Your task to perform on an android device: check android version Image 0: 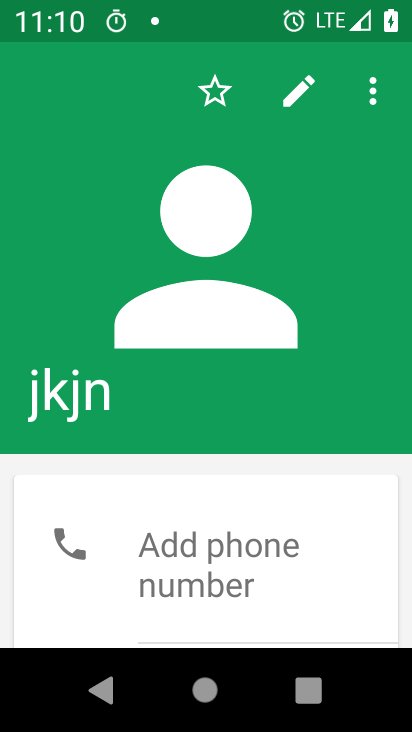
Step 0: drag from (212, 418) to (212, 199)
Your task to perform on an android device: check android version Image 1: 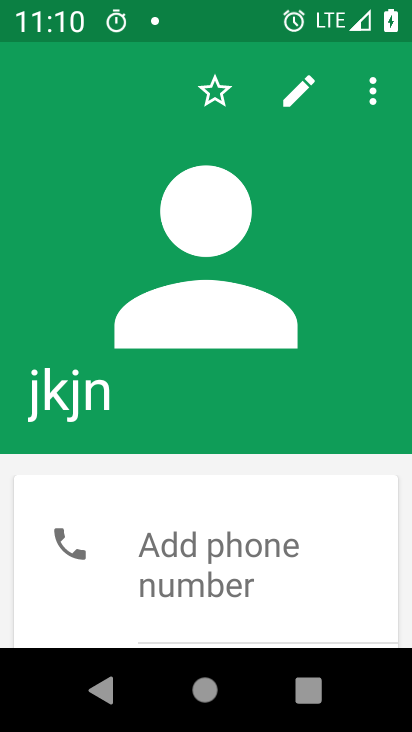
Step 1: drag from (230, 562) to (286, 228)
Your task to perform on an android device: check android version Image 2: 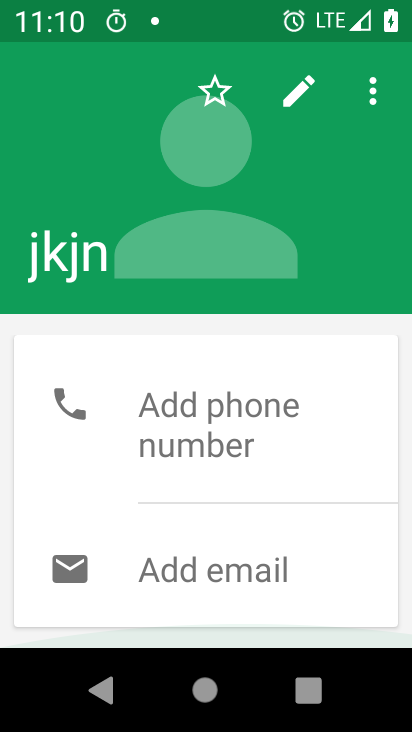
Step 2: drag from (253, 218) to (239, 553)
Your task to perform on an android device: check android version Image 3: 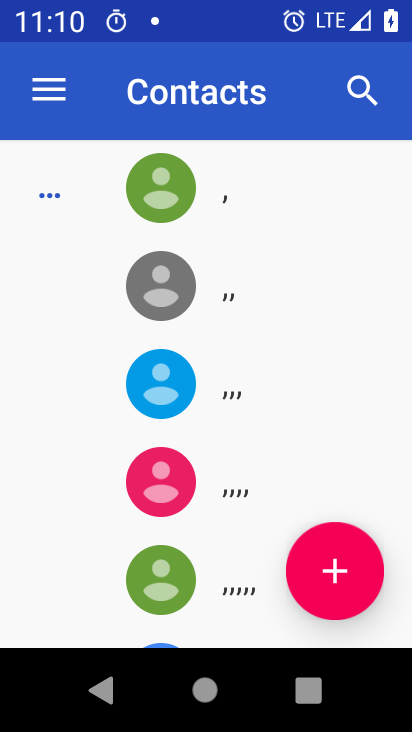
Step 3: press home button
Your task to perform on an android device: check android version Image 4: 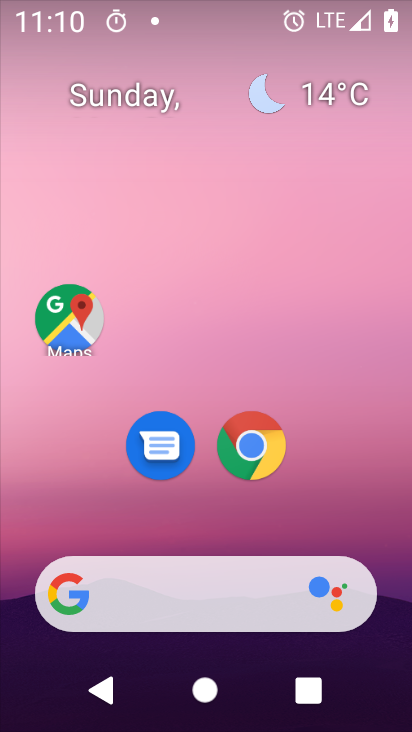
Step 4: drag from (210, 507) to (191, 192)
Your task to perform on an android device: check android version Image 5: 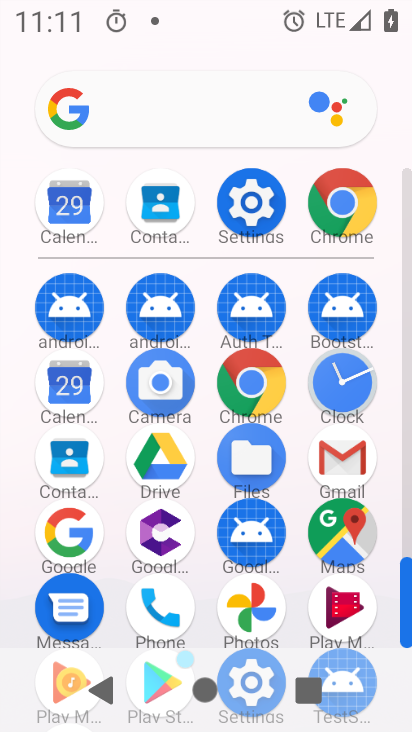
Step 5: click (243, 207)
Your task to perform on an android device: check android version Image 6: 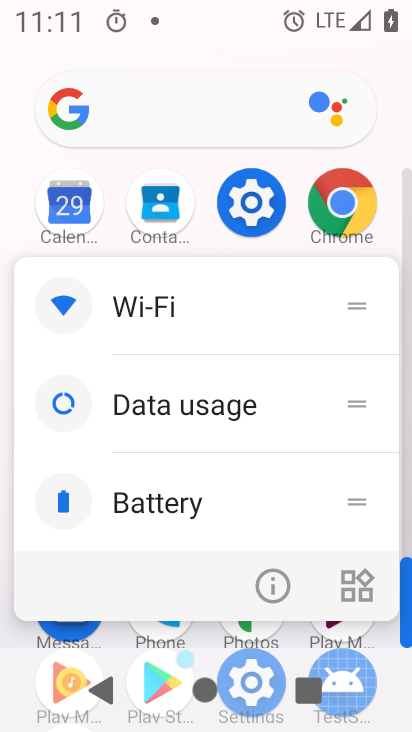
Step 6: click (271, 581)
Your task to perform on an android device: check android version Image 7: 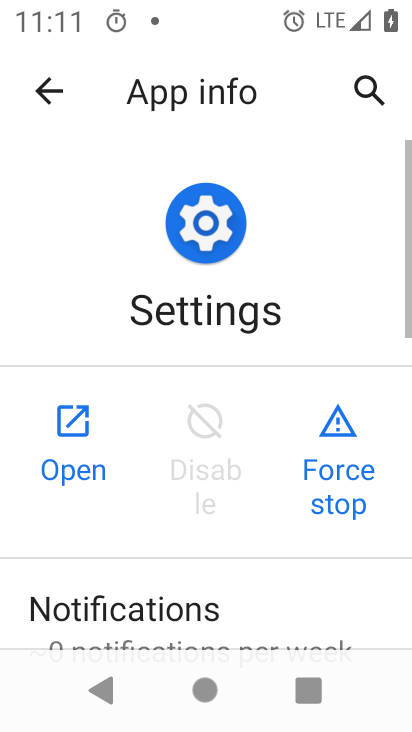
Step 7: click (79, 433)
Your task to perform on an android device: check android version Image 8: 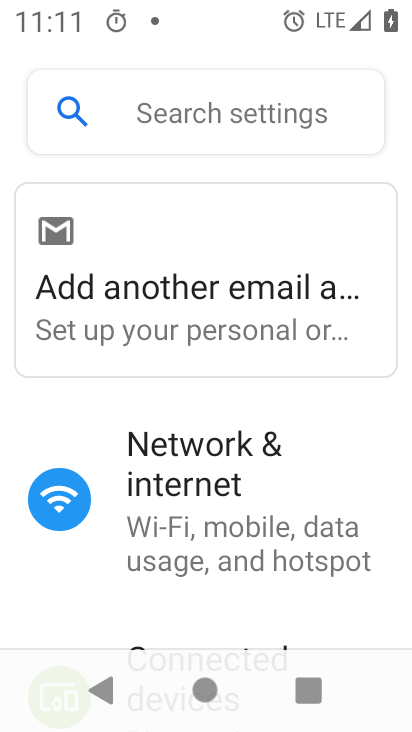
Step 8: drag from (280, 541) to (352, 3)
Your task to perform on an android device: check android version Image 9: 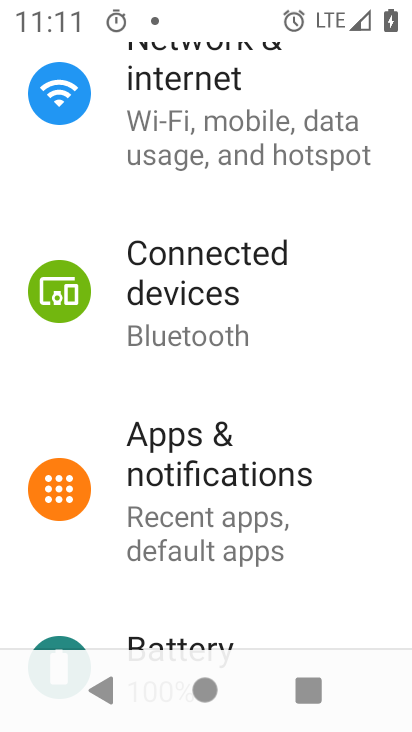
Step 9: drag from (271, 486) to (344, 0)
Your task to perform on an android device: check android version Image 10: 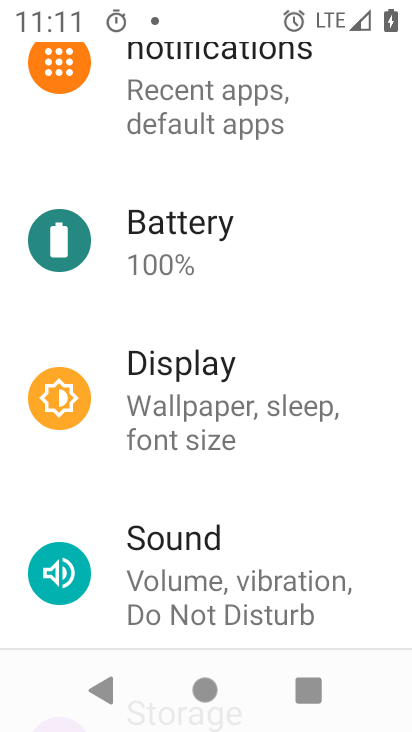
Step 10: drag from (195, 550) to (270, 9)
Your task to perform on an android device: check android version Image 11: 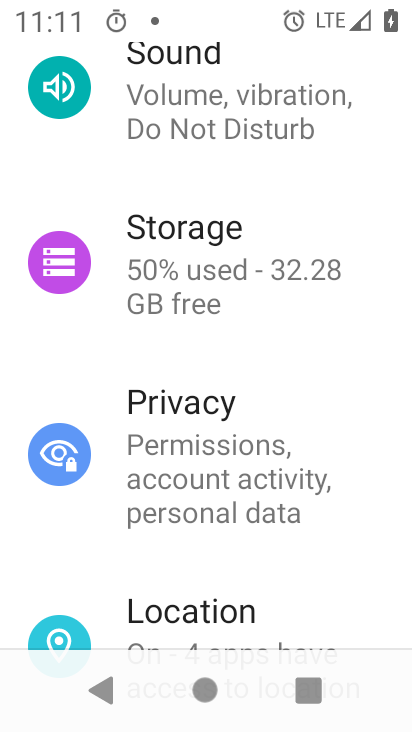
Step 11: drag from (237, 491) to (283, 44)
Your task to perform on an android device: check android version Image 12: 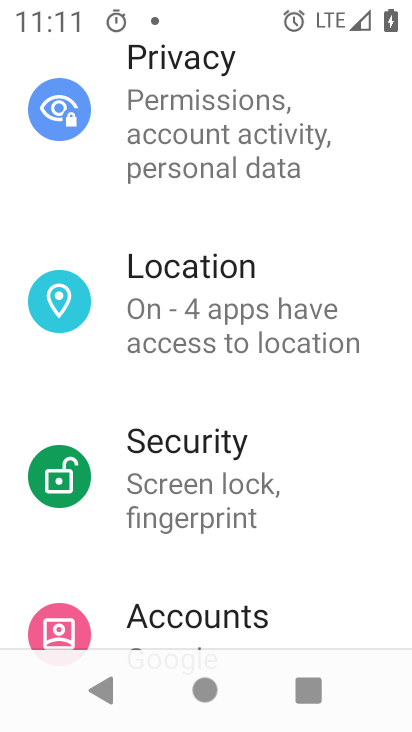
Step 12: drag from (249, 593) to (277, 208)
Your task to perform on an android device: check android version Image 13: 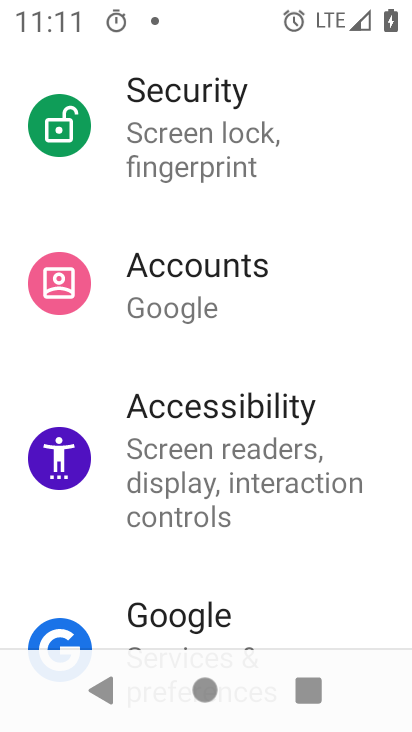
Step 13: drag from (200, 571) to (204, 5)
Your task to perform on an android device: check android version Image 14: 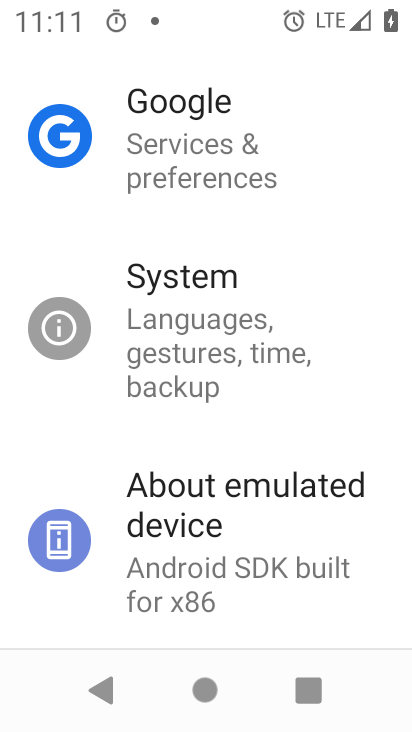
Step 14: drag from (258, 576) to (282, 151)
Your task to perform on an android device: check android version Image 15: 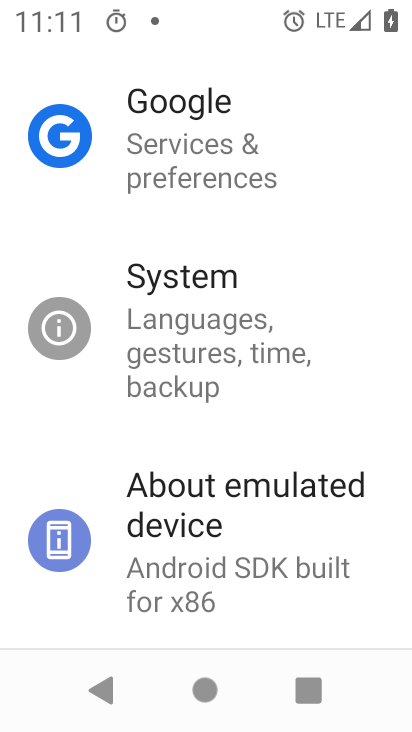
Step 15: drag from (207, 256) to (263, 634)
Your task to perform on an android device: check android version Image 16: 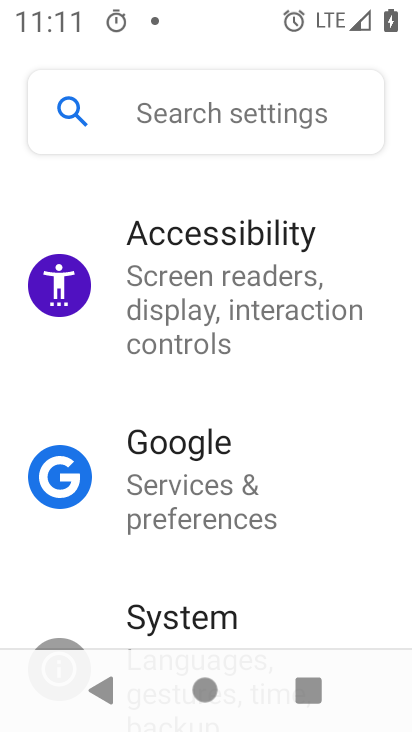
Step 16: drag from (255, 448) to (255, 105)
Your task to perform on an android device: check android version Image 17: 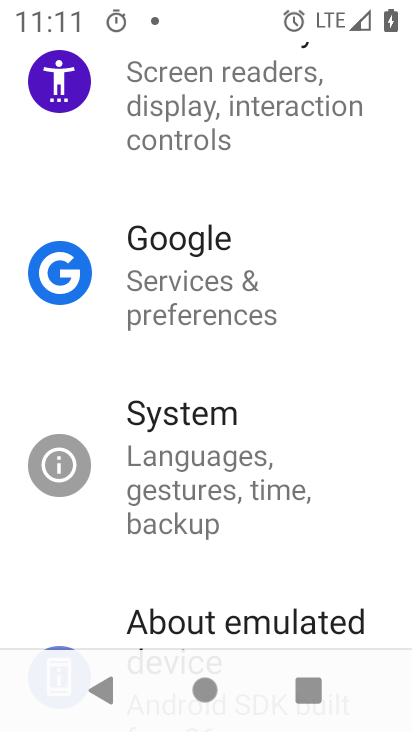
Step 17: click (192, 617)
Your task to perform on an android device: check android version Image 18: 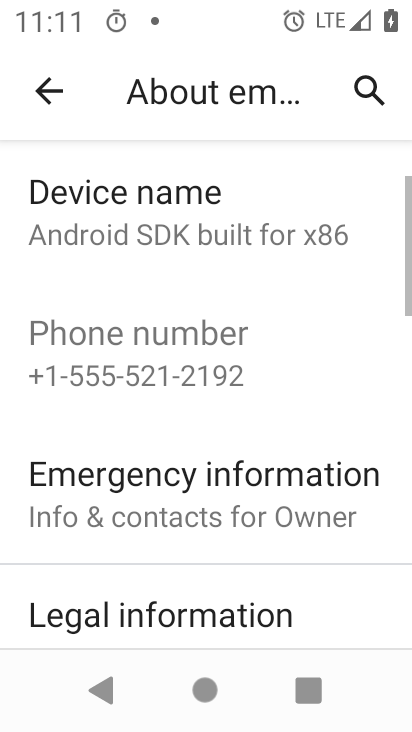
Step 18: drag from (216, 479) to (236, 160)
Your task to perform on an android device: check android version Image 19: 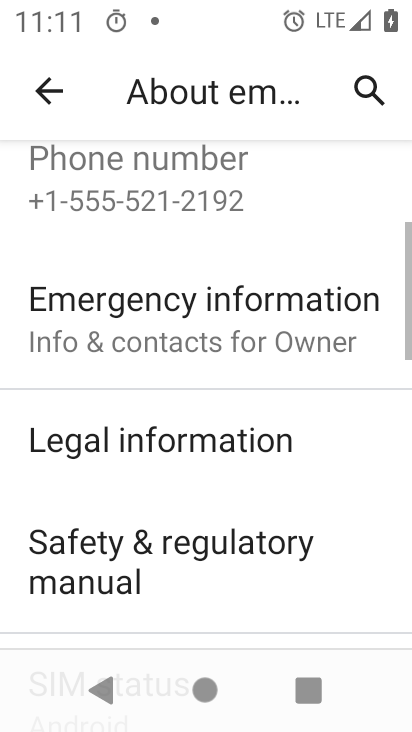
Step 19: drag from (264, 438) to (308, 172)
Your task to perform on an android device: check android version Image 20: 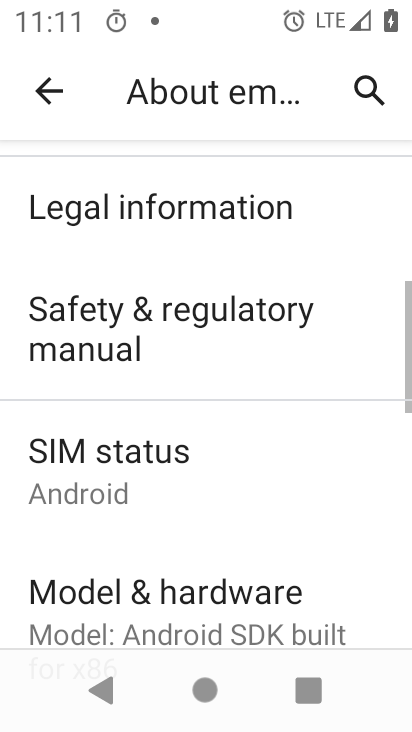
Step 20: drag from (232, 559) to (311, 93)
Your task to perform on an android device: check android version Image 21: 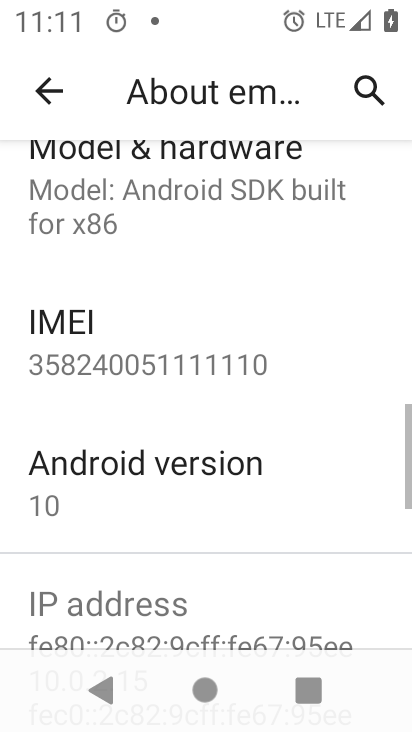
Step 21: click (213, 468)
Your task to perform on an android device: check android version Image 22: 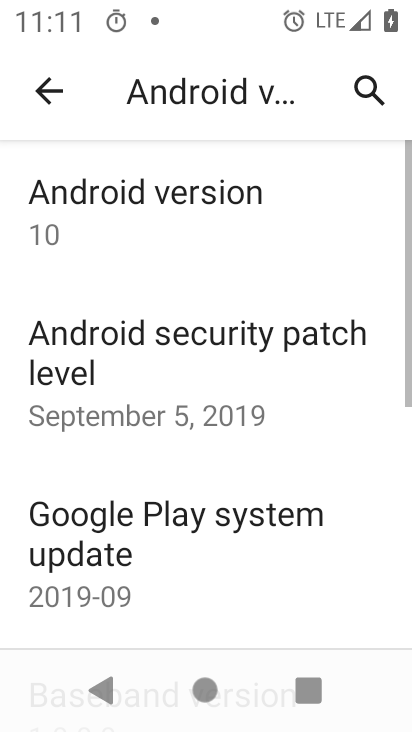
Step 22: task complete